Your task to perform on an android device: Go to ESPN.com Image 0: 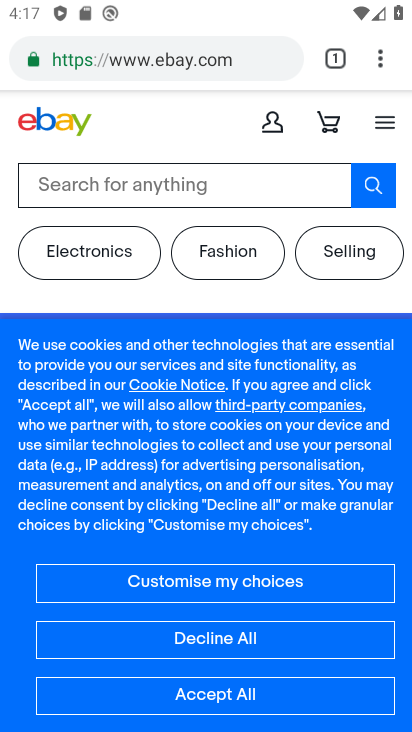
Step 0: press home button
Your task to perform on an android device: Go to ESPN.com Image 1: 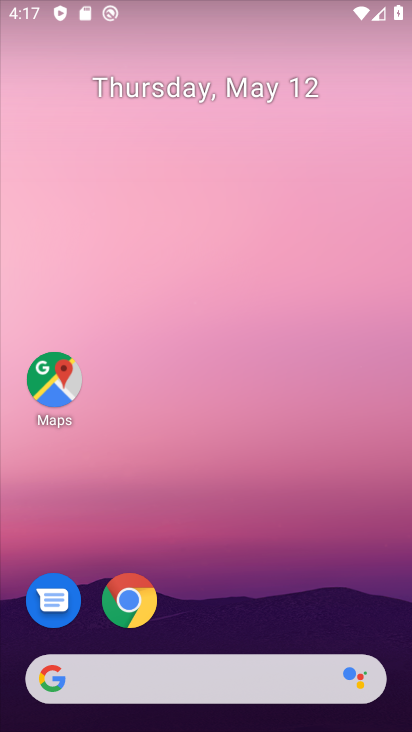
Step 1: drag from (243, 632) to (162, 0)
Your task to perform on an android device: Go to ESPN.com Image 2: 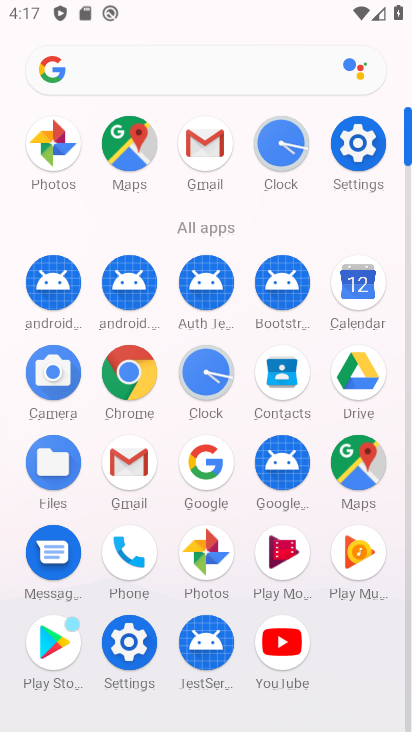
Step 2: click (212, 63)
Your task to perform on an android device: Go to ESPN.com Image 3: 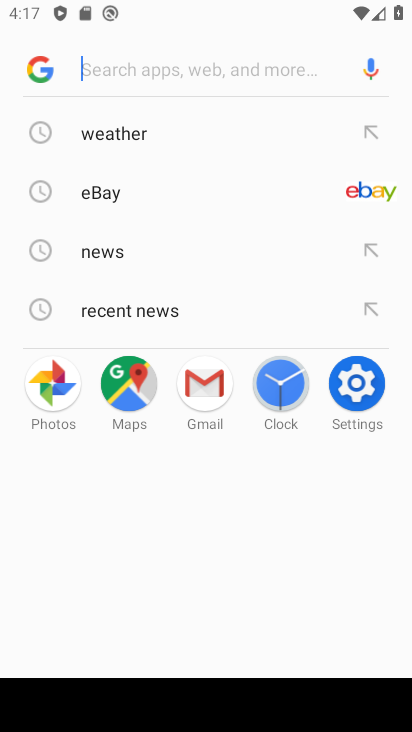
Step 3: type "espn"
Your task to perform on an android device: Go to ESPN.com Image 4: 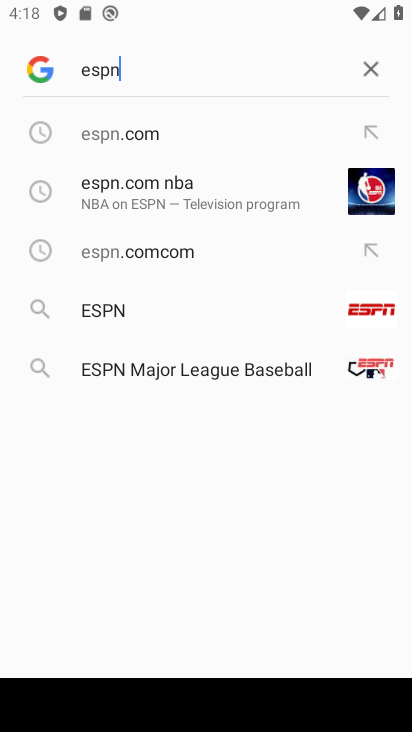
Step 4: click (204, 142)
Your task to perform on an android device: Go to ESPN.com Image 5: 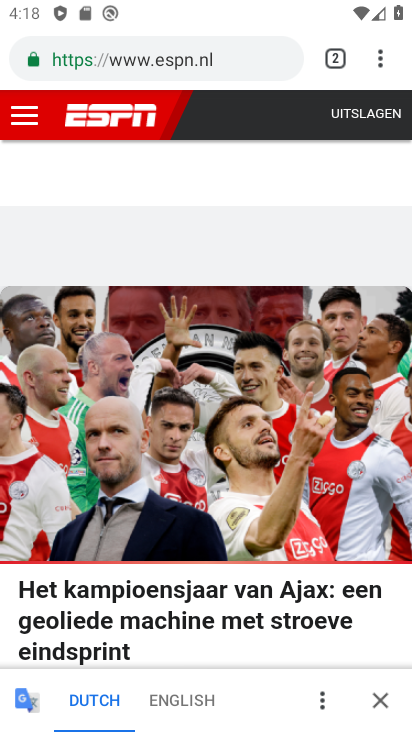
Step 5: task complete